Your task to perform on an android device: Open calendar and show me the first week of next month Image 0: 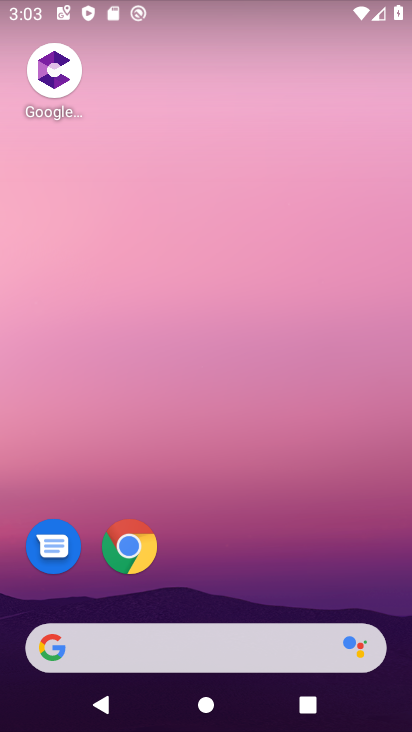
Step 0: drag from (300, 605) to (296, 228)
Your task to perform on an android device: Open calendar and show me the first week of next month Image 1: 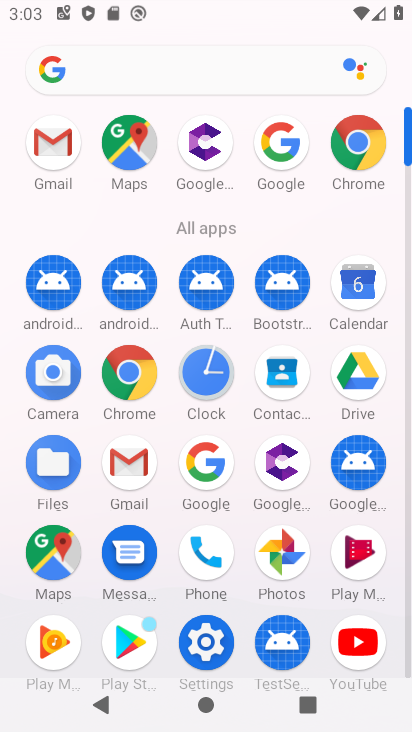
Step 1: click (372, 288)
Your task to perform on an android device: Open calendar and show me the first week of next month Image 2: 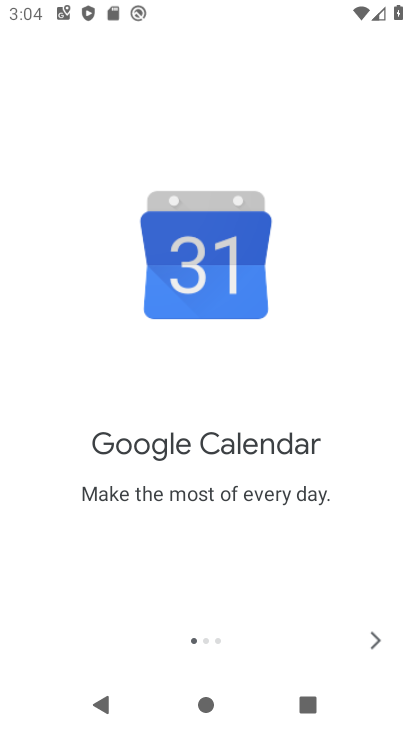
Step 2: click (378, 626)
Your task to perform on an android device: Open calendar and show me the first week of next month Image 3: 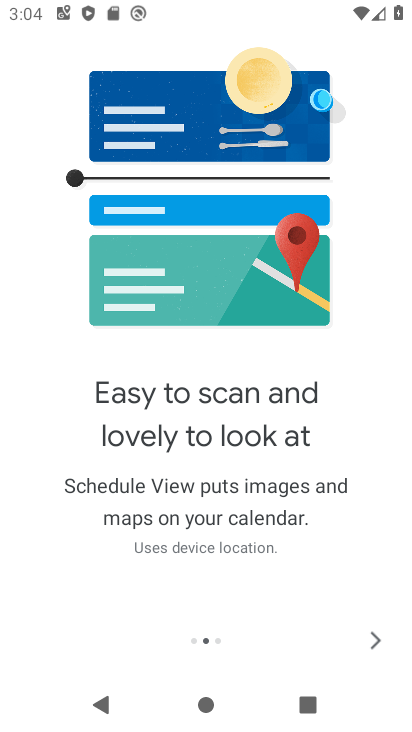
Step 3: click (378, 626)
Your task to perform on an android device: Open calendar and show me the first week of next month Image 4: 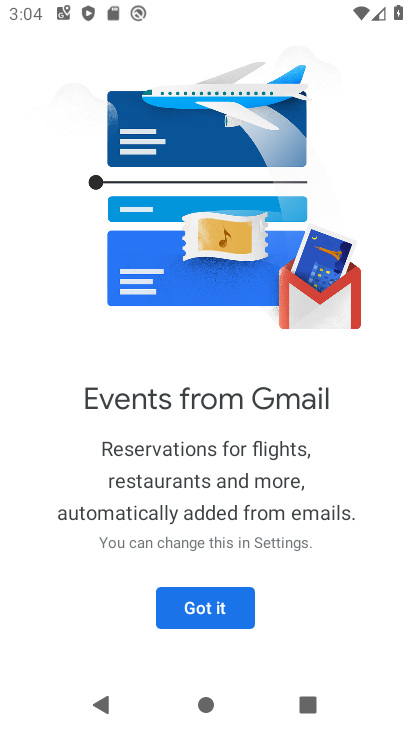
Step 4: click (208, 602)
Your task to perform on an android device: Open calendar and show me the first week of next month Image 5: 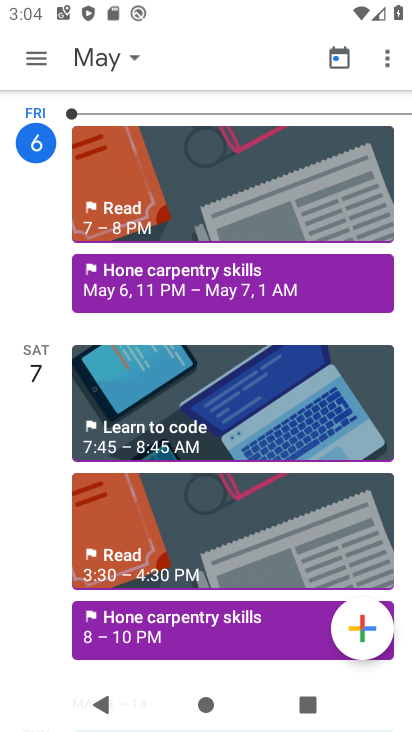
Step 5: click (42, 57)
Your task to perform on an android device: Open calendar and show me the first week of next month Image 6: 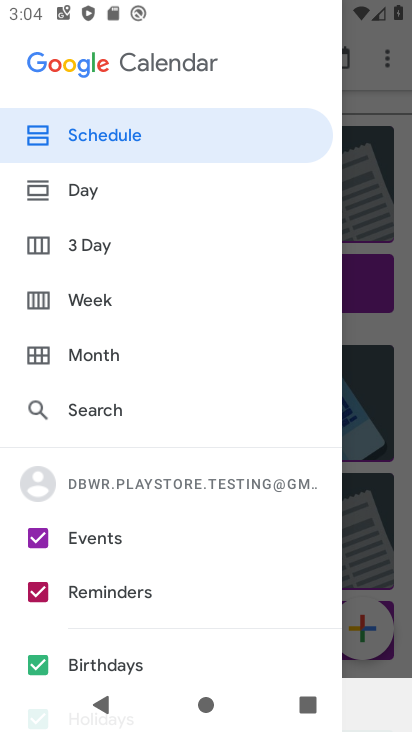
Step 6: click (149, 293)
Your task to perform on an android device: Open calendar and show me the first week of next month Image 7: 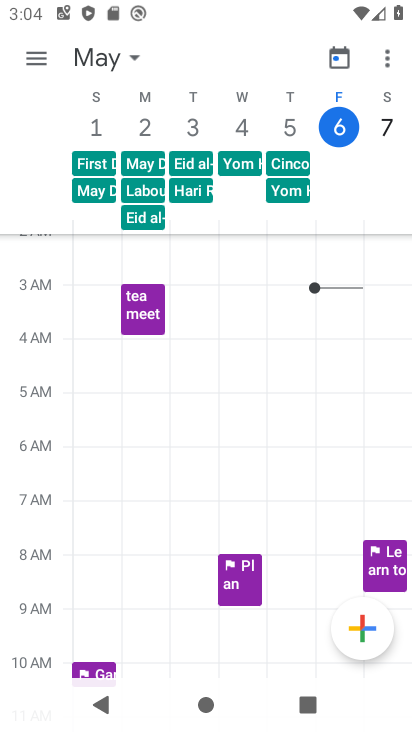
Step 7: click (135, 65)
Your task to perform on an android device: Open calendar and show me the first week of next month Image 8: 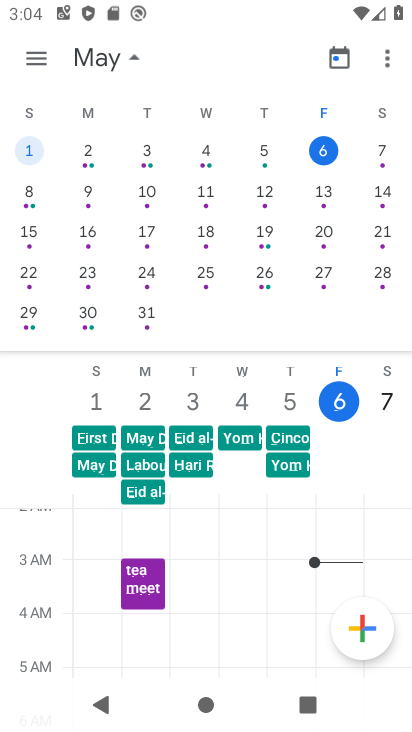
Step 8: drag from (397, 238) to (34, 262)
Your task to perform on an android device: Open calendar and show me the first week of next month Image 9: 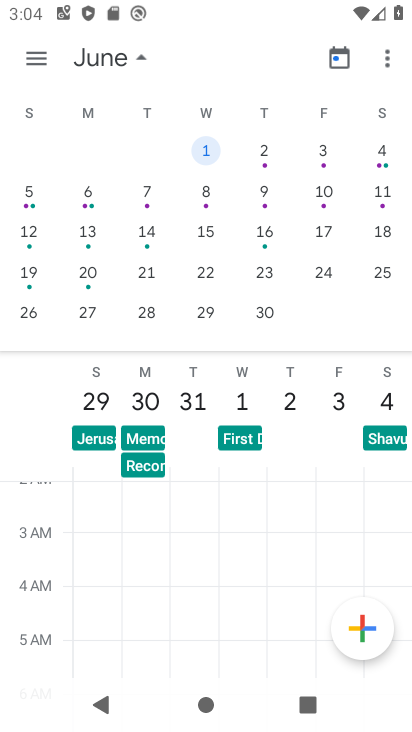
Step 9: click (204, 192)
Your task to perform on an android device: Open calendar and show me the first week of next month Image 10: 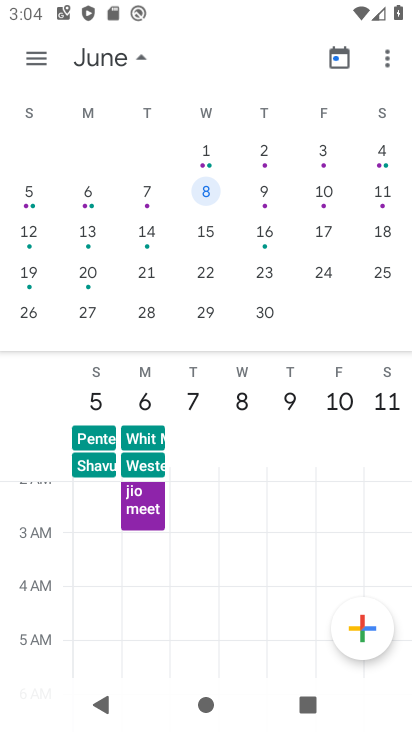
Step 10: task complete